Your task to perform on an android device: open chrome privacy settings Image 0: 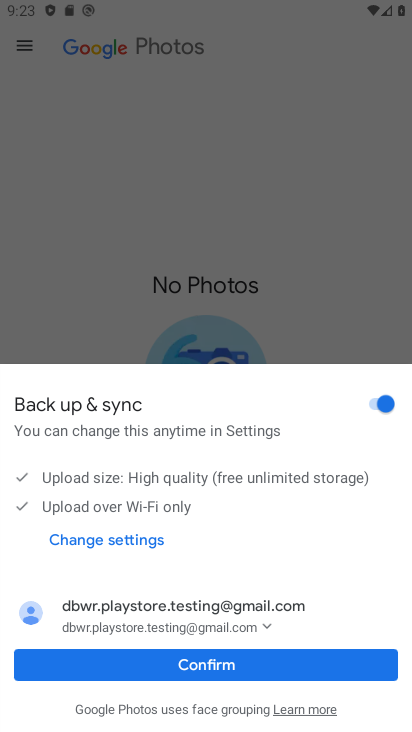
Step 0: press home button
Your task to perform on an android device: open chrome privacy settings Image 1: 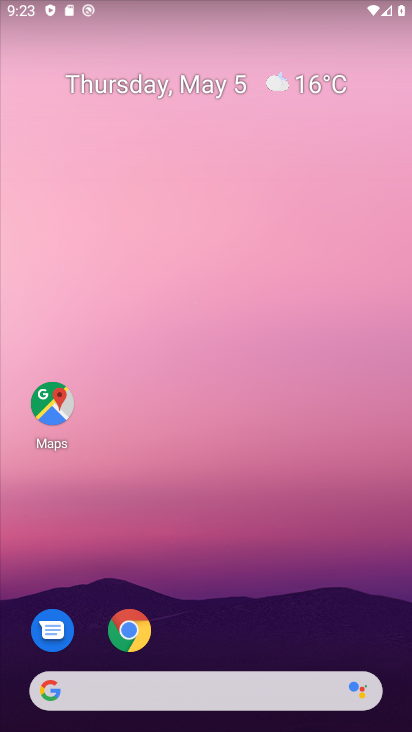
Step 1: click (127, 636)
Your task to perform on an android device: open chrome privacy settings Image 2: 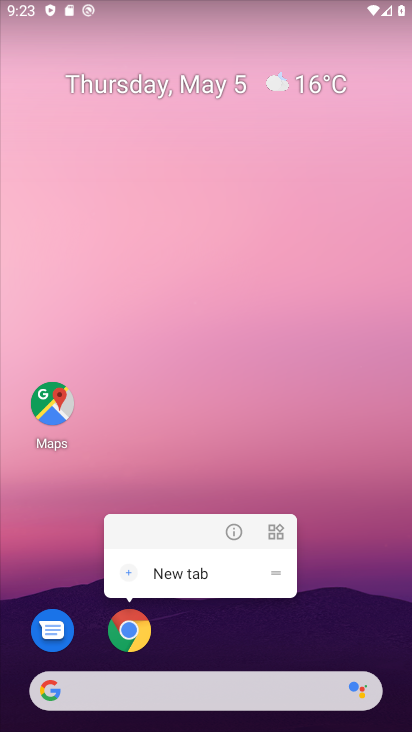
Step 2: click (127, 636)
Your task to perform on an android device: open chrome privacy settings Image 3: 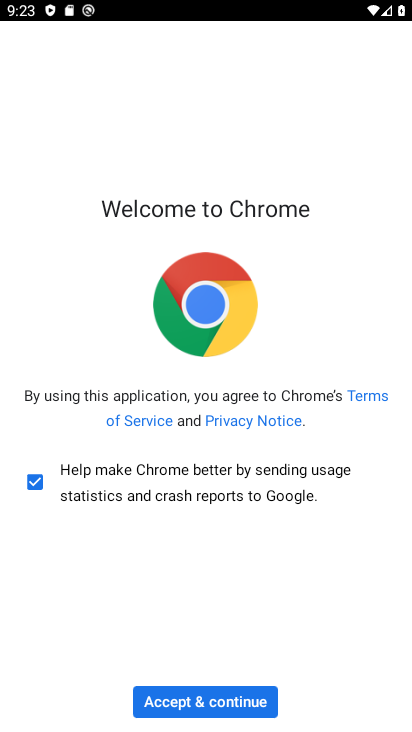
Step 3: click (241, 705)
Your task to perform on an android device: open chrome privacy settings Image 4: 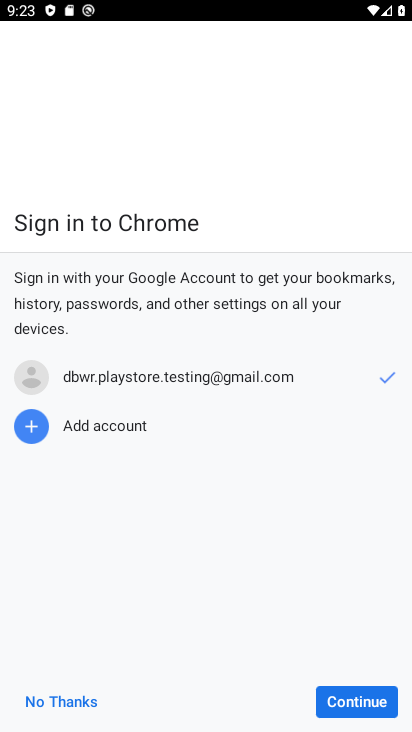
Step 4: click (376, 691)
Your task to perform on an android device: open chrome privacy settings Image 5: 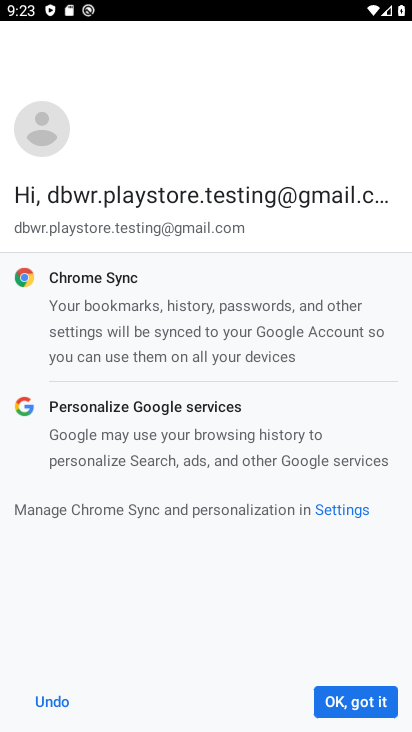
Step 5: click (364, 700)
Your task to perform on an android device: open chrome privacy settings Image 6: 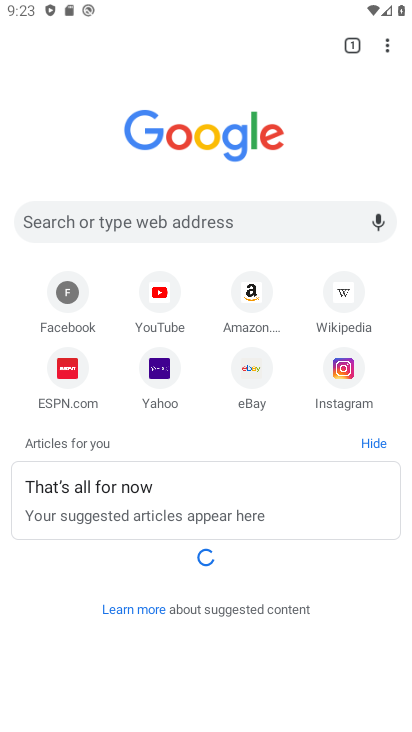
Step 6: drag from (388, 49) to (301, 388)
Your task to perform on an android device: open chrome privacy settings Image 7: 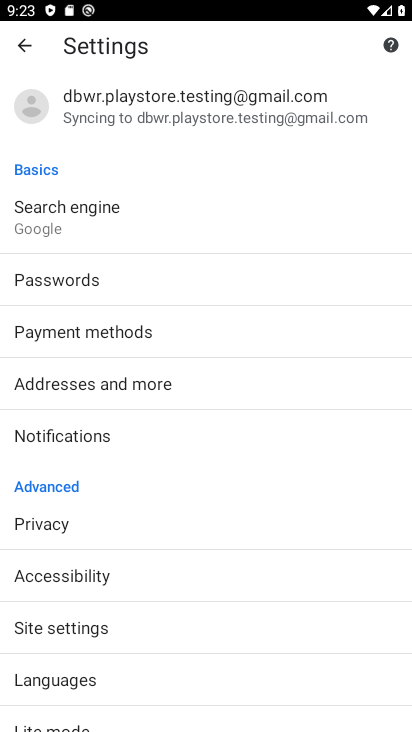
Step 7: click (34, 514)
Your task to perform on an android device: open chrome privacy settings Image 8: 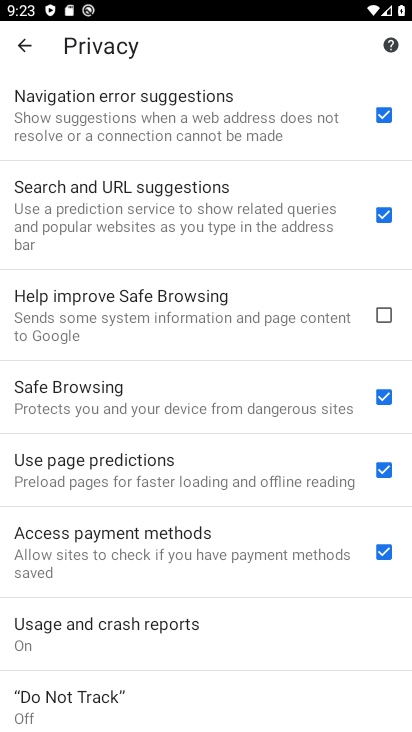
Step 8: task complete